Your task to perform on an android device: allow notifications from all sites in the chrome app Image 0: 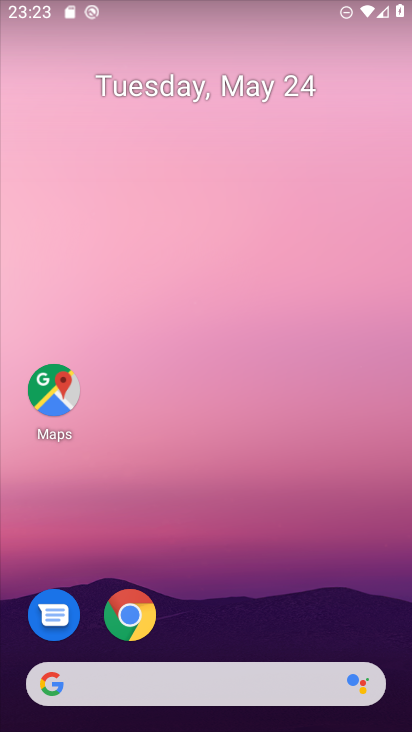
Step 0: drag from (247, 699) to (335, 61)
Your task to perform on an android device: allow notifications from all sites in the chrome app Image 1: 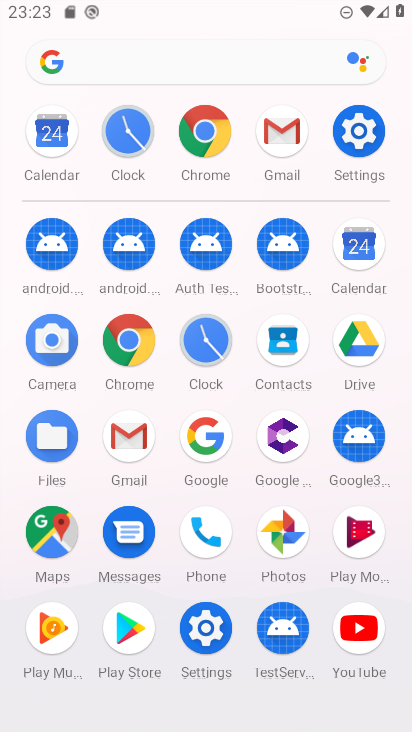
Step 1: click (199, 134)
Your task to perform on an android device: allow notifications from all sites in the chrome app Image 2: 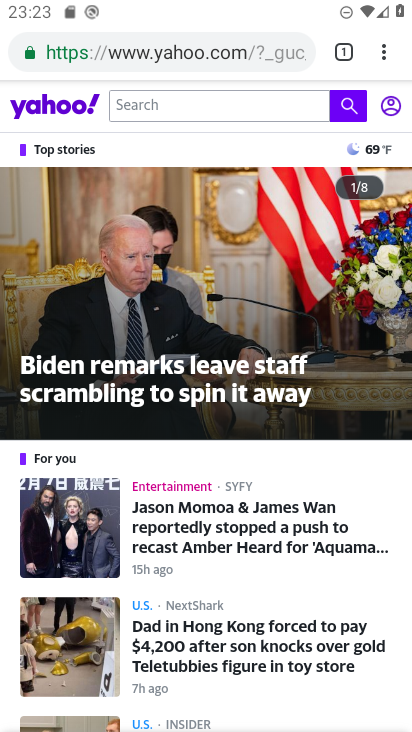
Step 2: click (383, 54)
Your task to perform on an android device: allow notifications from all sites in the chrome app Image 3: 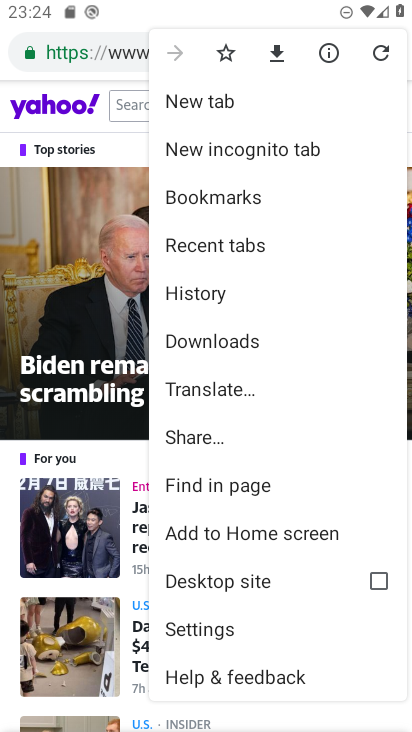
Step 3: click (219, 629)
Your task to perform on an android device: allow notifications from all sites in the chrome app Image 4: 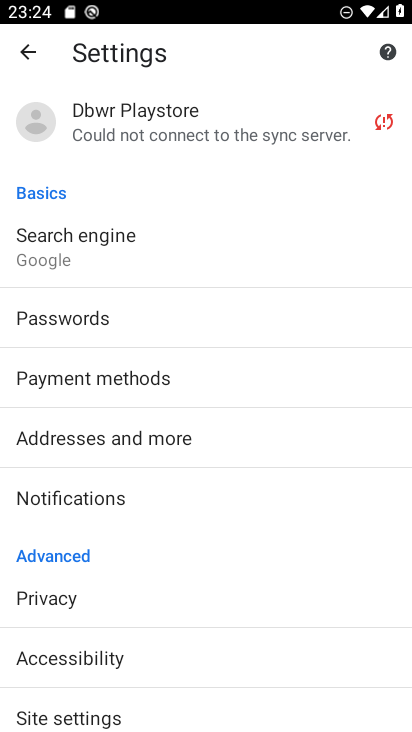
Step 4: click (81, 719)
Your task to perform on an android device: allow notifications from all sites in the chrome app Image 5: 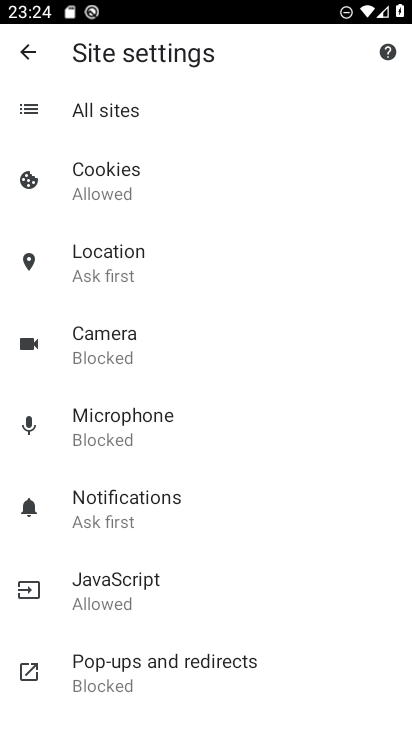
Step 5: click (90, 510)
Your task to perform on an android device: allow notifications from all sites in the chrome app Image 6: 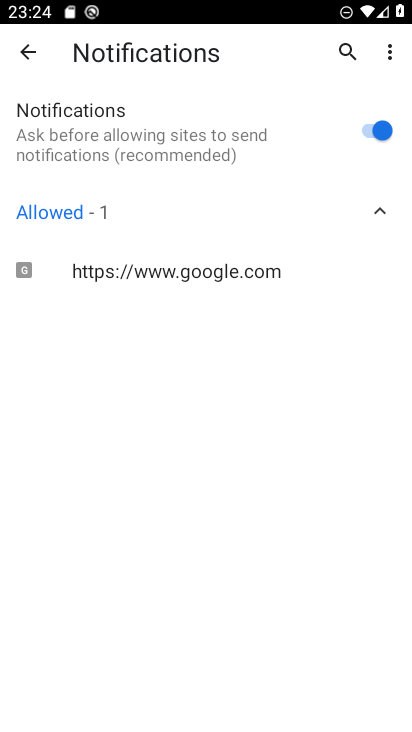
Step 6: click (370, 133)
Your task to perform on an android device: allow notifications from all sites in the chrome app Image 7: 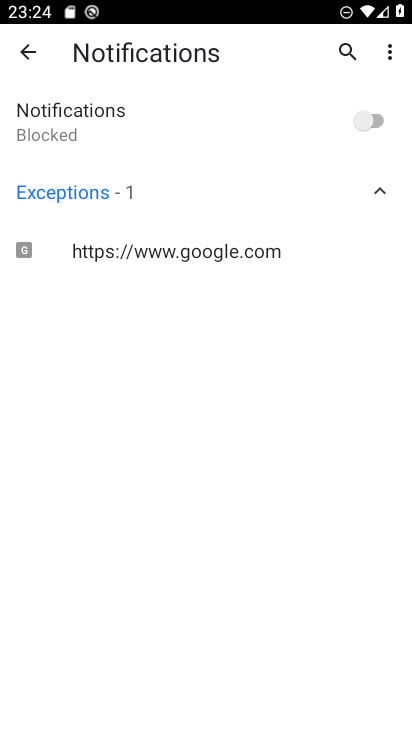
Step 7: click (371, 127)
Your task to perform on an android device: allow notifications from all sites in the chrome app Image 8: 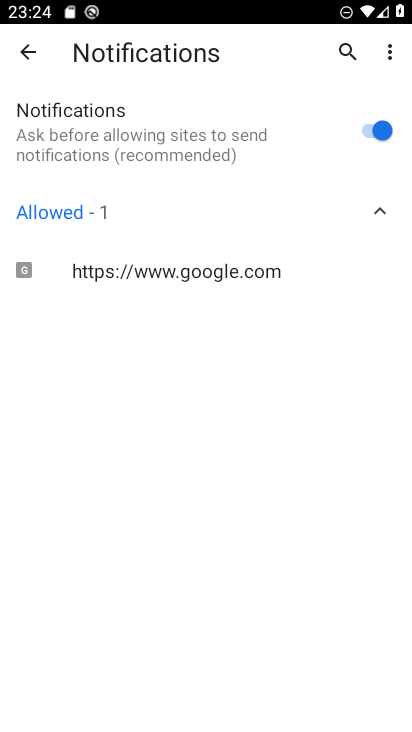
Step 8: task complete